Your task to perform on an android device: Open internet settings Image 0: 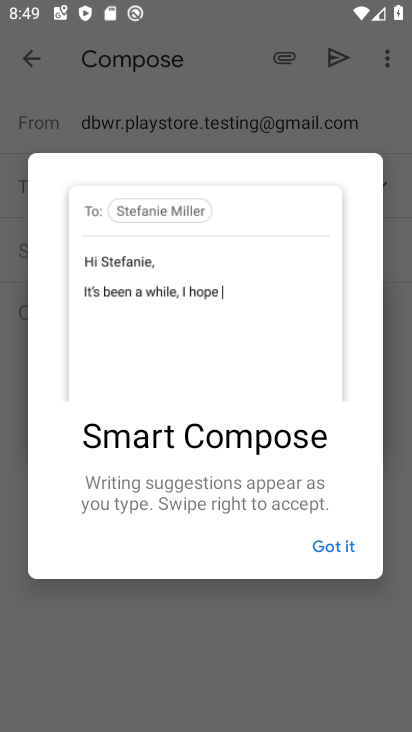
Step 0: click (345, 546)
Your task to perform on an android device: Open internet settings Image 1: 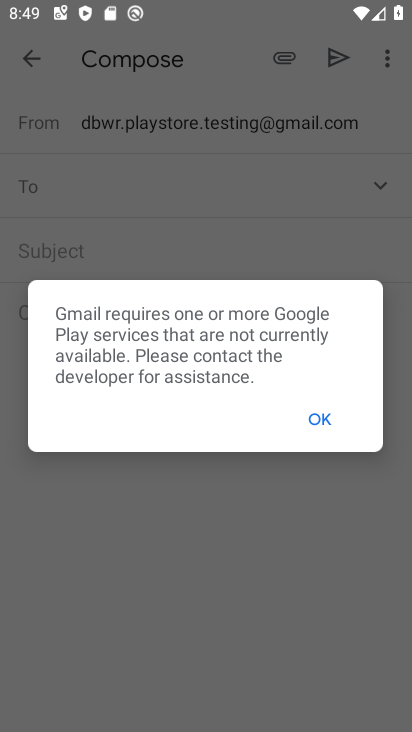
Step 1: click (307, 423)
Your task to perform on an android device: Open internet settings Image 2: 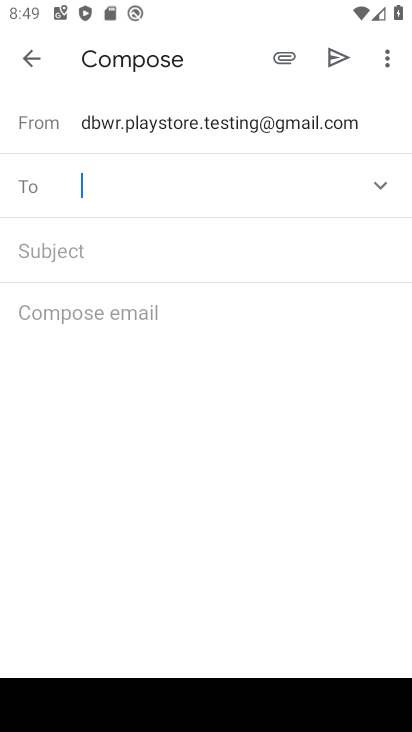
Step 2: press home button
Your task to perform on an android device: Open internet settings Image 3: 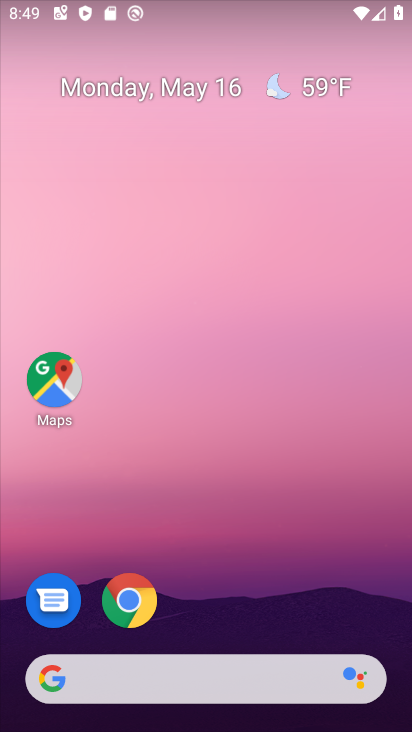
Step 3: drag from (177, 624) to (248, 34)
Your task to perform on an android device: Open internet settings Image 4: 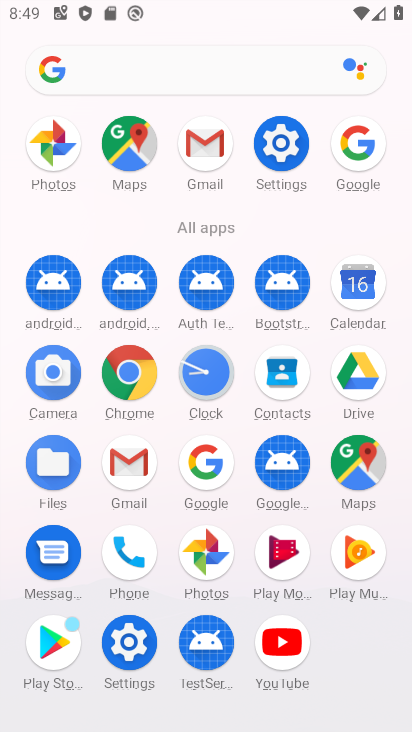
Step 4: click (272, 126)
Your task to perform on an android device: Open internet settings Image 5: 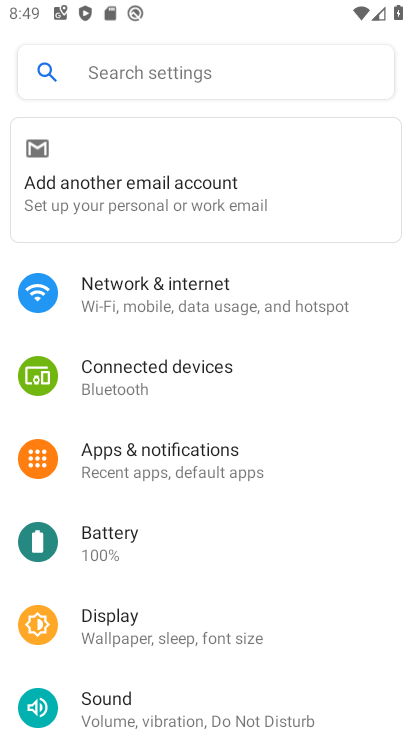
Step 5: click (143, 295)
Your task to perform on an android device: Open internet settings Image 6: 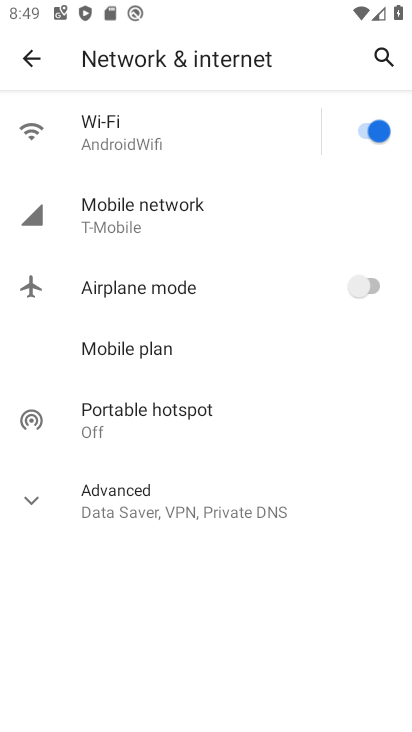
Step 6: drag from (210, 533) to (243, 296)
Your task to perform on an android device: Open internet settings Image 7: 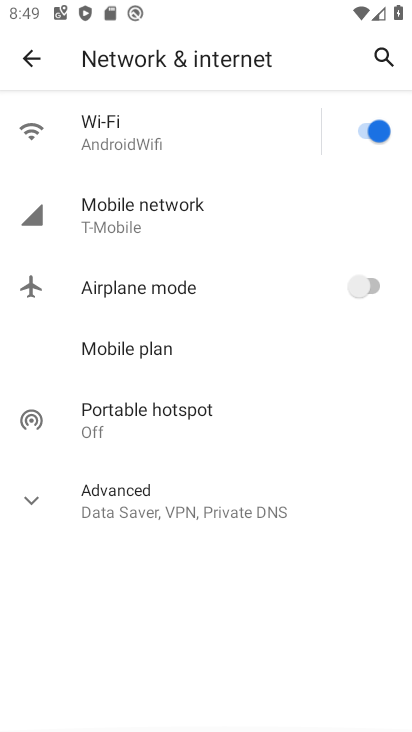
Step 7: click (200, 495)
Your task to perform on an android device: Open internet settings Image 8: 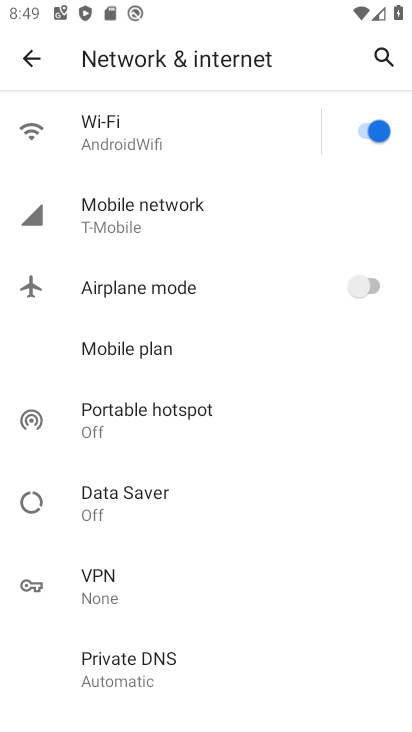
Step 8: task complete